Your task to perform on an android device: toggle location history Image 0: 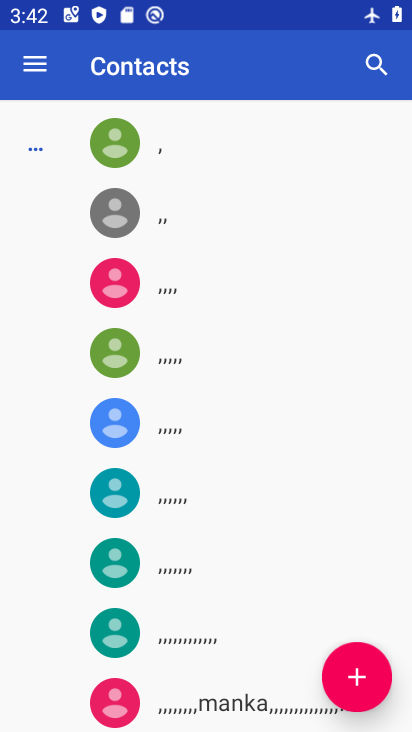
Step 0: press home button
Your task to perform on an android device: toggle location history Image 1: 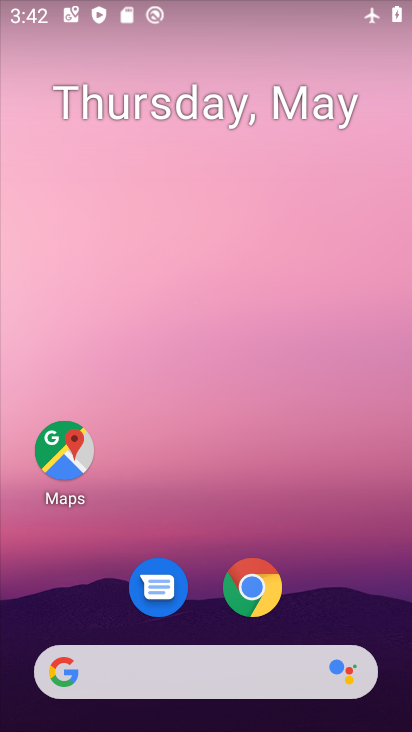
Step 1: drag from (230, 602) to (264, 124)
Your task to perform on an android device: toggle location history Image 2: 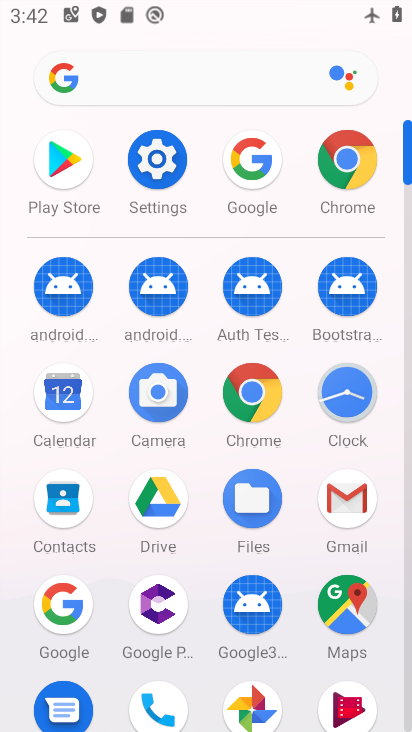
Step 2: click (178, 176)
Your task to perform on an android device: toggle location history Image 3: 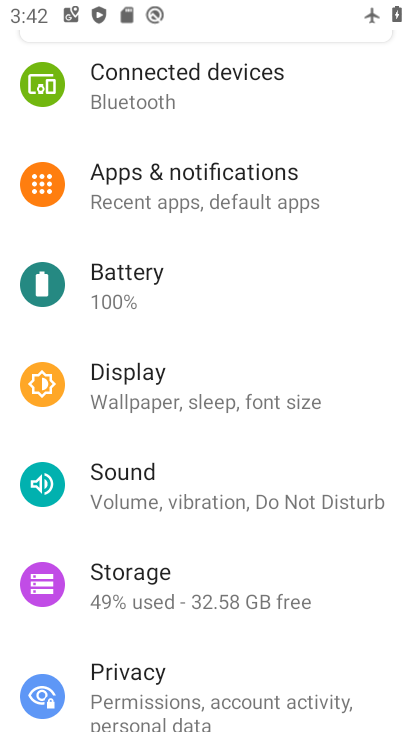
Step 3: drag from (191, 377) to (149, 673)
Your task to perform on an android device: toggle location history Image 4: 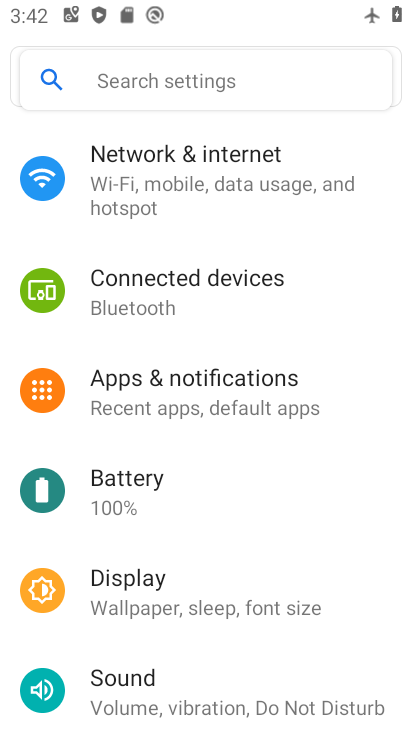
Step 4: drag from (180, 561) to (229, 271)
Your task to perform on an android device: toggle location history Image 5: 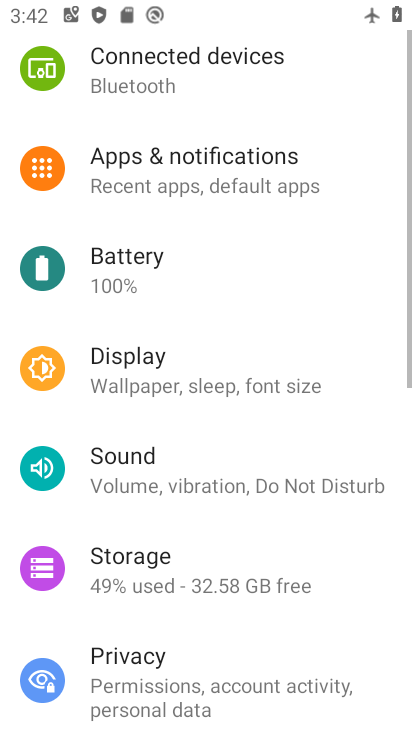
Step 5: drag from (218, 469) to (261, 255)
Your task to perform on an android device: toggle location history Image 6: 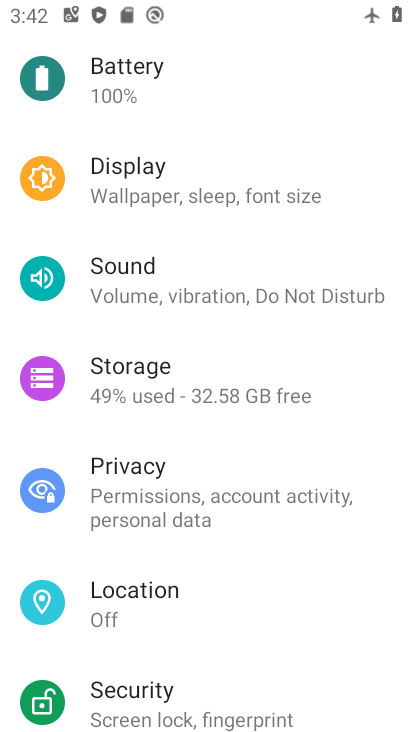
Step 6: drag from (210, 580) to (227, 273)
Your task to perform on an android device: toggle location history Image 7: 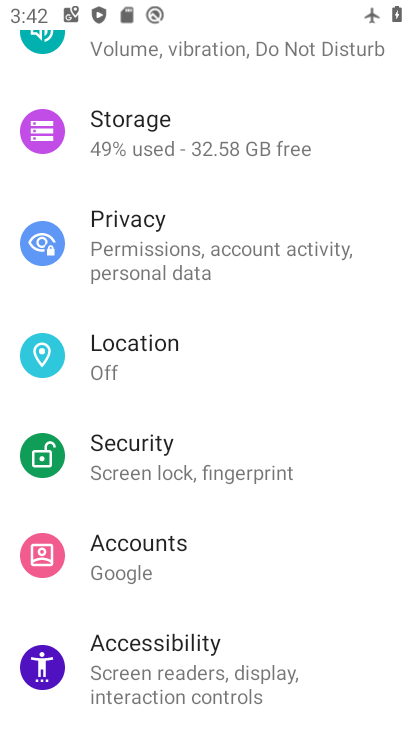
Step 7: drag from (175, 562) to (206, 293)
Your task to perform on an android device: toggle location history Image 8: 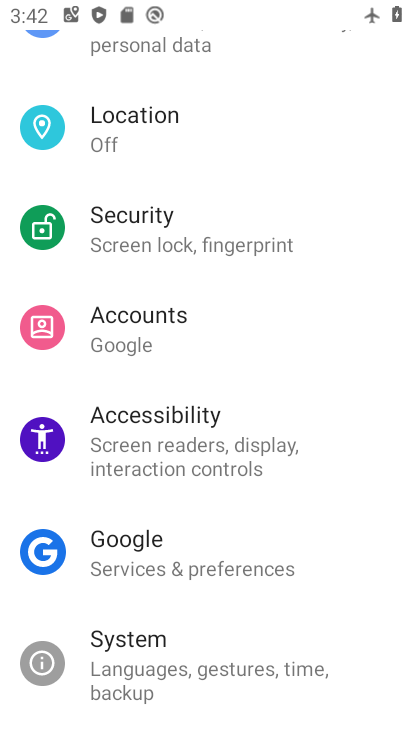
Step 8: click (213, 159)
Your task to perform on an android device: toggle location history Image 9: 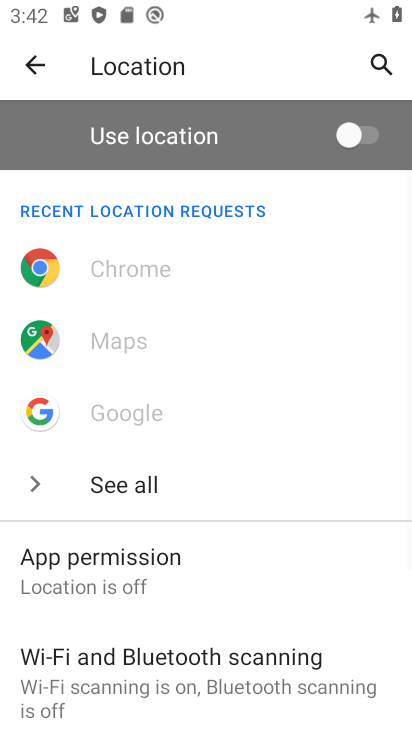
Step 9: drag from (138, 567) to (202, 165)
Your task to perform on an android device: toggle location history Image 10: 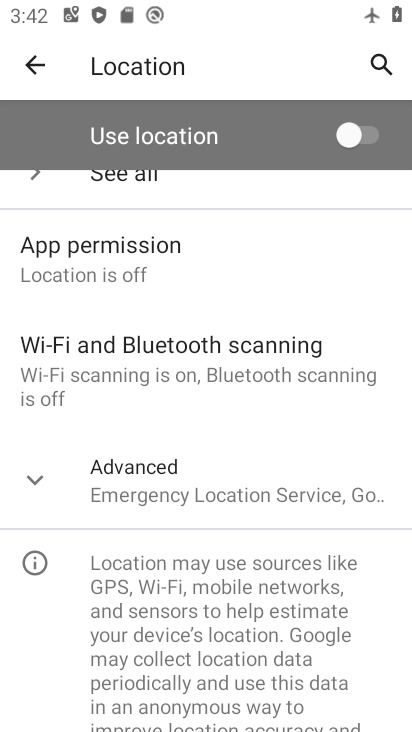
Step 10: click (157, 474)
Your task to perform on an android device: toggle location history Image 11: 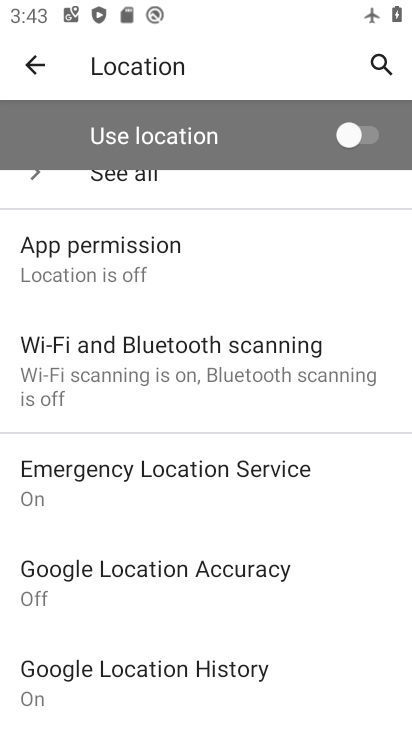
Step 11: click (194, 674)
Your task to perform on an android device: toggle location history Image 12: 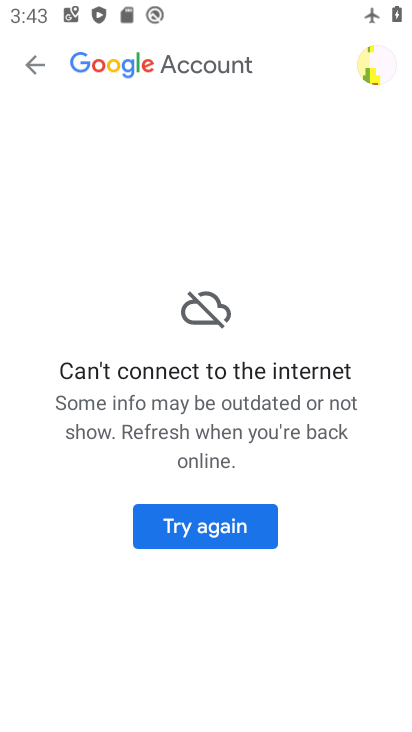
Step 12: task complete